Your task to perform on an android device: turn off priority inbox in the gmail app Image 0: 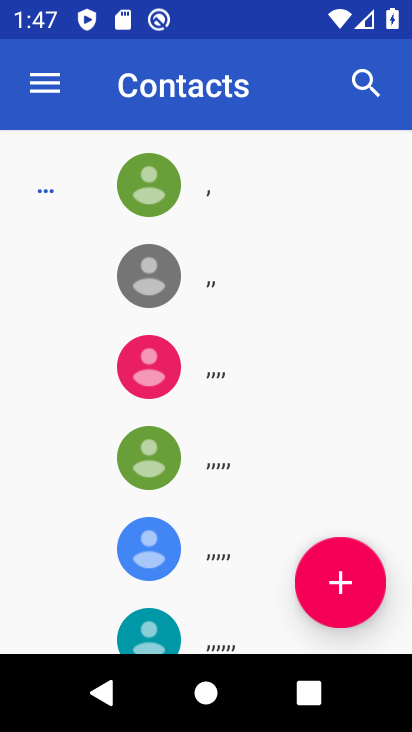
Step 0: press home button
Your task to perform on an android device: turn off priority inbox in the gmail app Image 1: 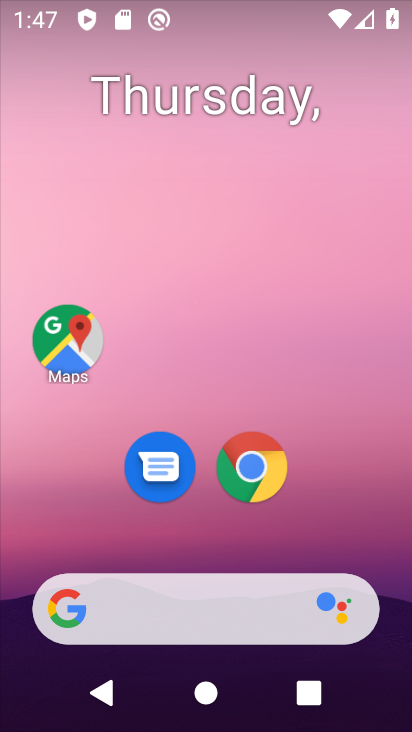
Step 1: drag from (361, 478) to (306, 133)
Your task to perform on an android device: turn off priority inbox in the gmail app Image 2: 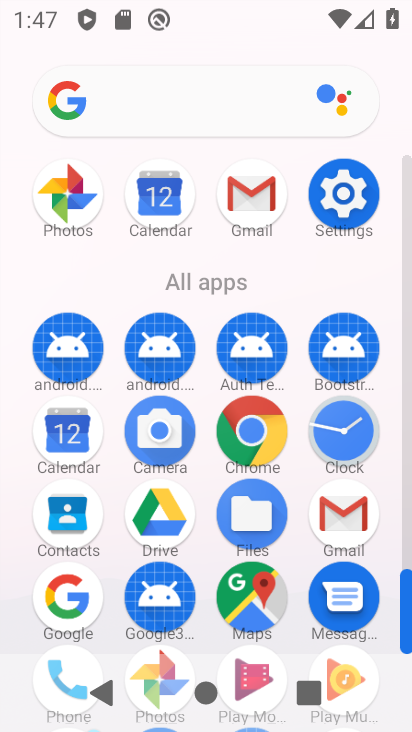
Step 2: click (332, 519)
Your task to perform on an android device: turn off priority inbox in the gmail app Image 3: 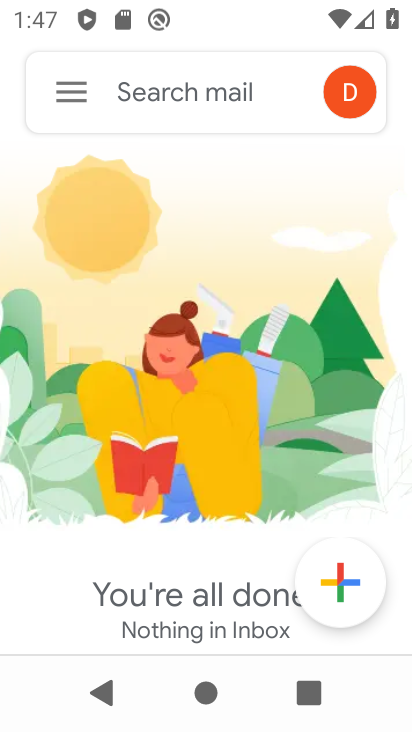
Step 3: click (139, 719)
Your task to perform on an android device: turn off priority inbox in the gmail app Image 4: 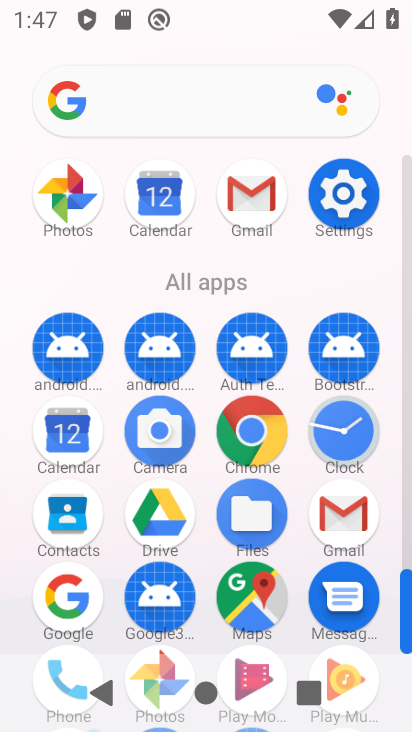
Step 4: click (355, 511)
Your task to perform on an android device: turn off priority inbox in the gmail app Image 5: 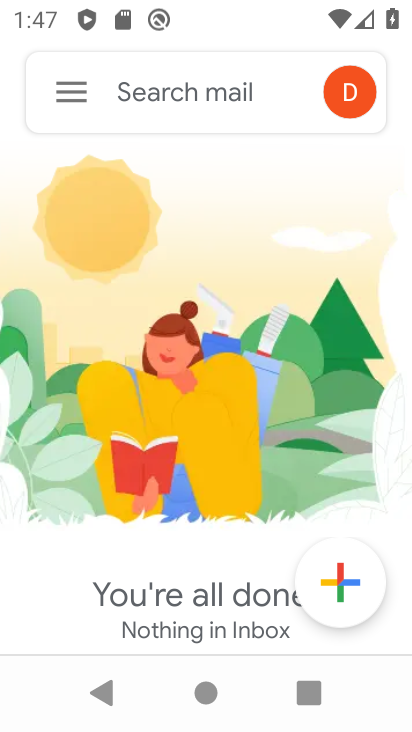
Step 5: click (71, 81)
Your task to perform on an android device: turn off priority inbox in the gmail app Image 6: 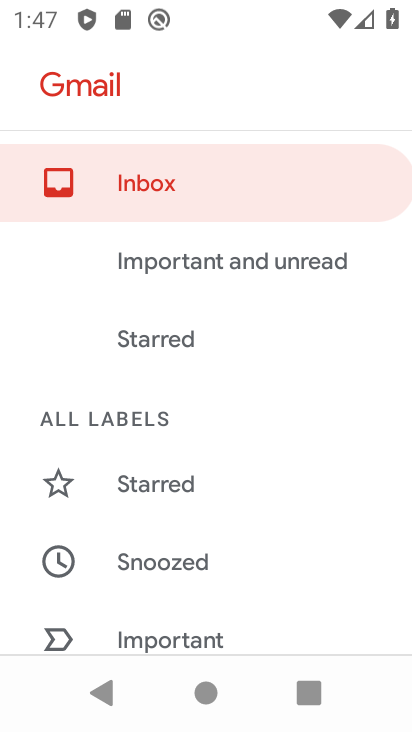
Step 6: drag from (220, 573) to (193, 122)
Your task to perform on an android device: turn off priority inbox in the gmail app Image 7: 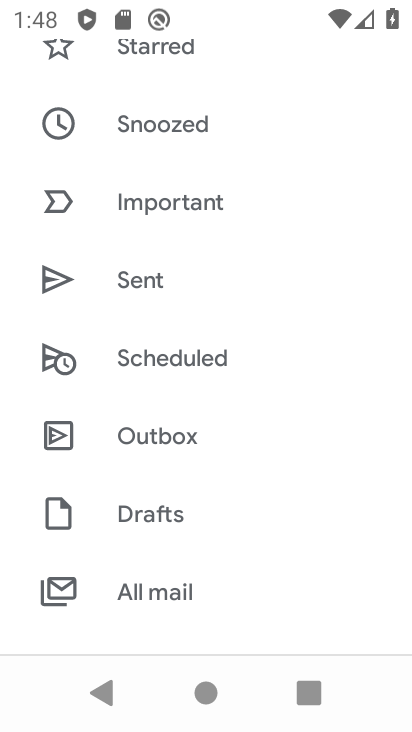
Step 7: drag from (198, 622) to (169, 212)
Your task to perform on an android device: turn off priority inbox in the gmail app Image 8: 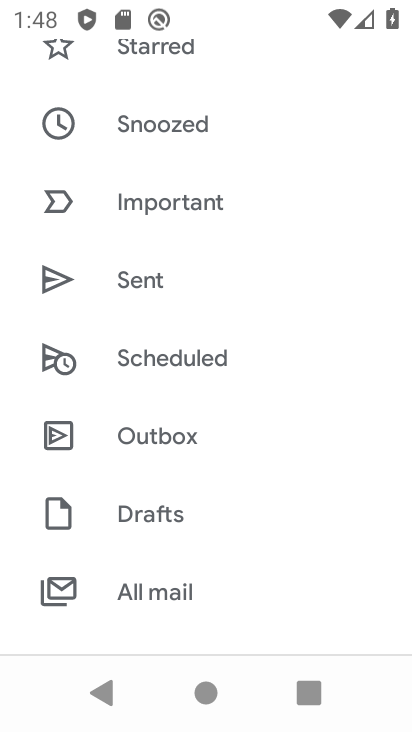
Step 8: drag from (177, 588) to (176, 212)
Your task to perform on an android device: turn off priority inbox in the gmail app Image 9: 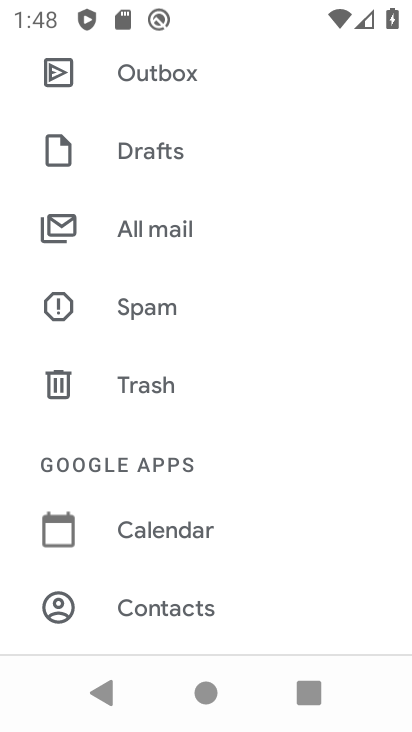
Step 9: drag from (234, 590) to (211, 289)
Your task to perform on an android device: turn off priority inbox in the gmail app Image 10: 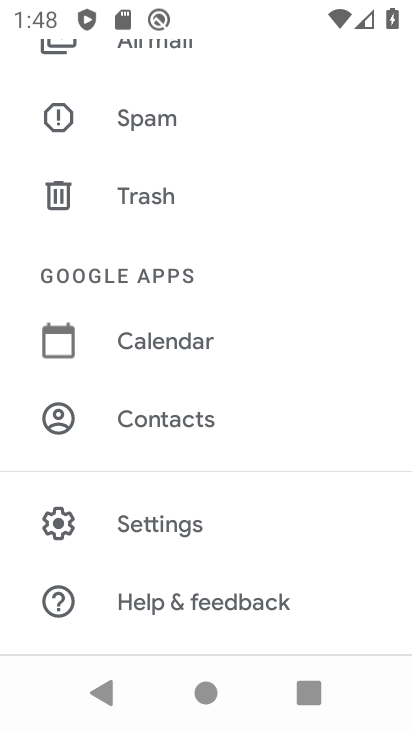
Step 10: click (206, 524)
Your task to perform on an android device: turn off priority inbox in the gmail app Image 11: 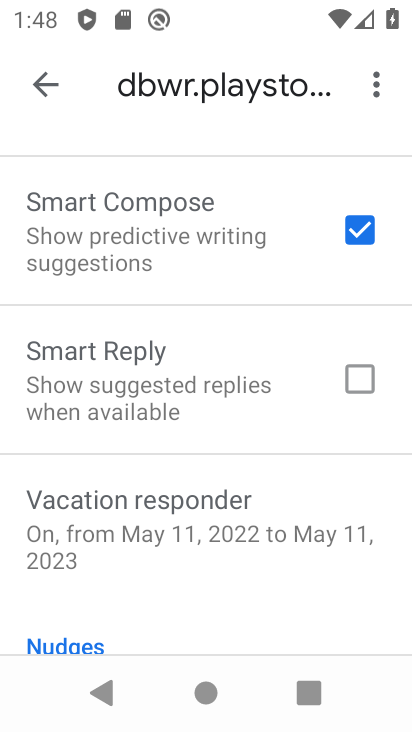
Step 11: drag from (252, 332) to (277, 588)
Your task to perform on an android device: turn off priority inbox in the gmail app Image 12: 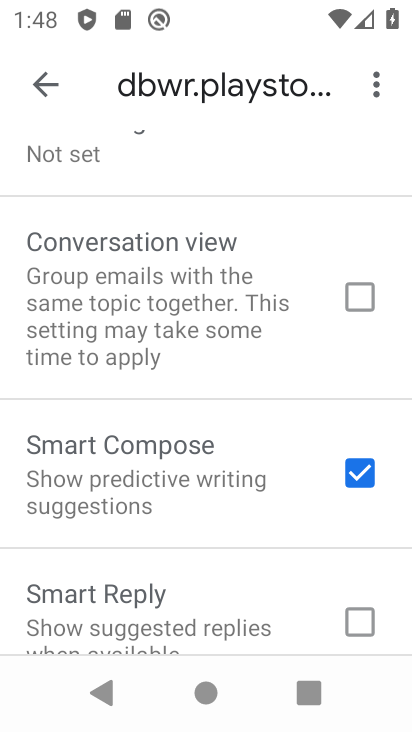
Step 12: drag from (171, 164) to (171, 728)
Your task to perform on an android device: turn off priority inbox in the gmail app Image 13: 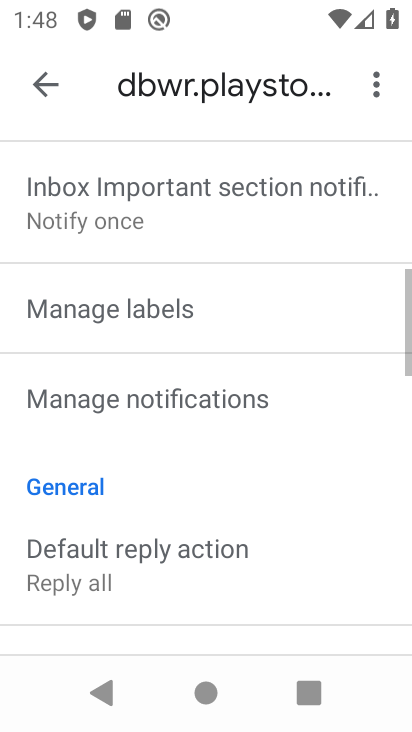
Step 13: drag from (154, 233) to (299, 729)
Your task to perform on an android device: turn off priority inbox in the gmail app Image 14: 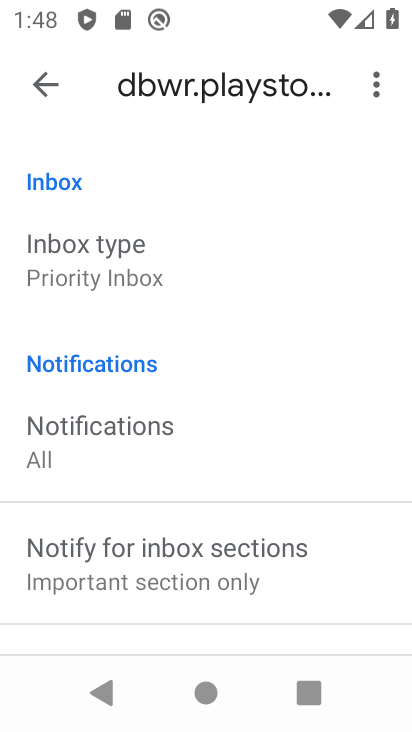
Step 14: click (164, 260)
Your task to perform on an android device: turn off priority inbox in the gmail app Image 15: 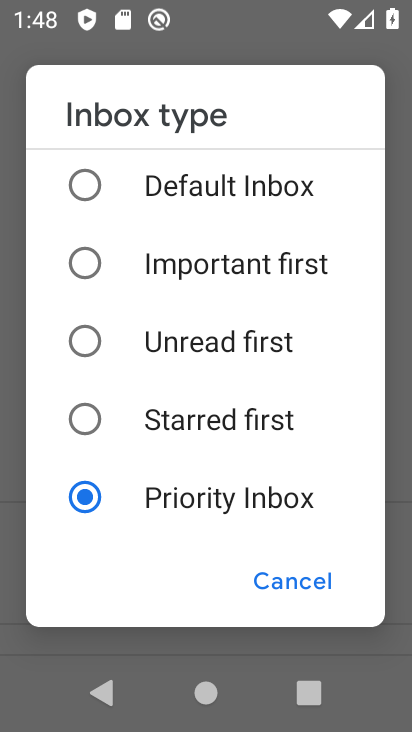
Step 15: click (147, 192)
Your task to perform on an android device: turn off priority inbox in the gmail app Image 16: 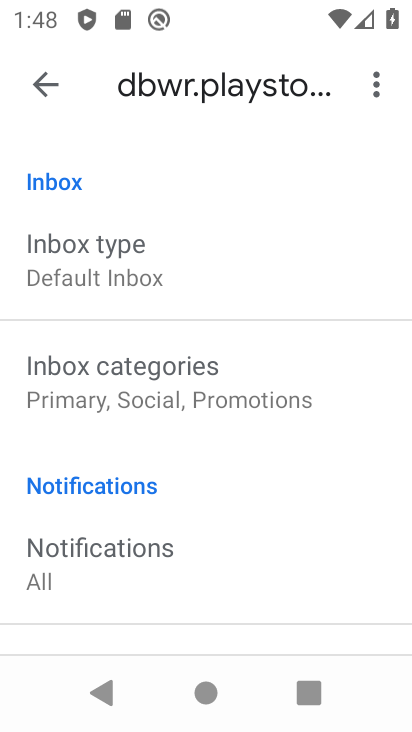
Step 16: task complete